Your task to perform on an android device: Go to Google Image 0: 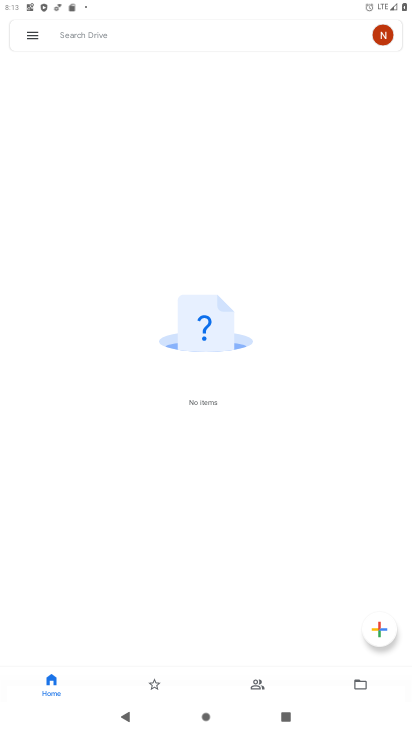
Step 0: press home button
Your task to perform on an android device: Go to Google Image 1: 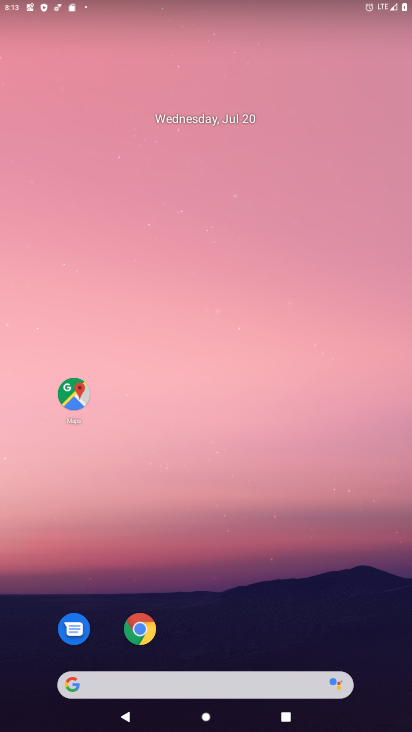
Step 1: drag from (226, 420) to (218, 197)
Your task to perform on an android device: Go to Google Image 2: 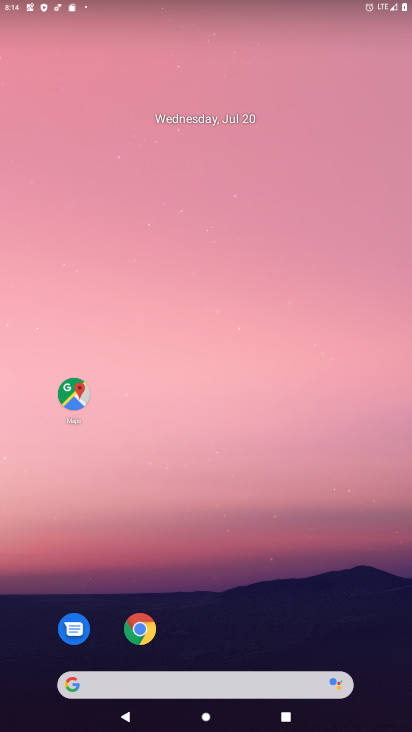
Step 2: drag from (205, 561) to (184, 21)
Your task to perform on an android device: Go to Google Image 3: 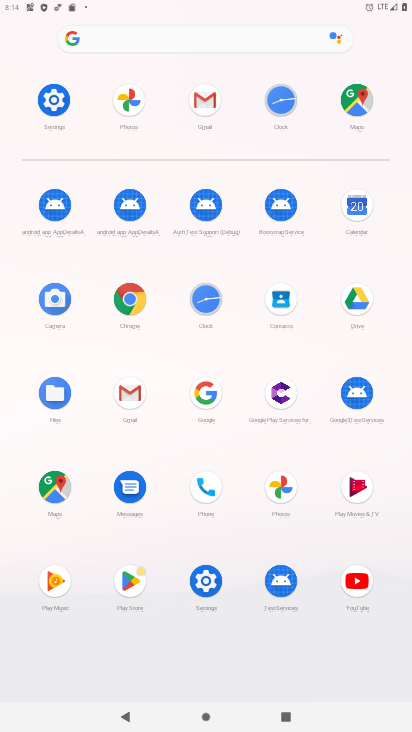
Step 3: click (211, 409)
Your task to perform on an android device: Go to Google Image 4: 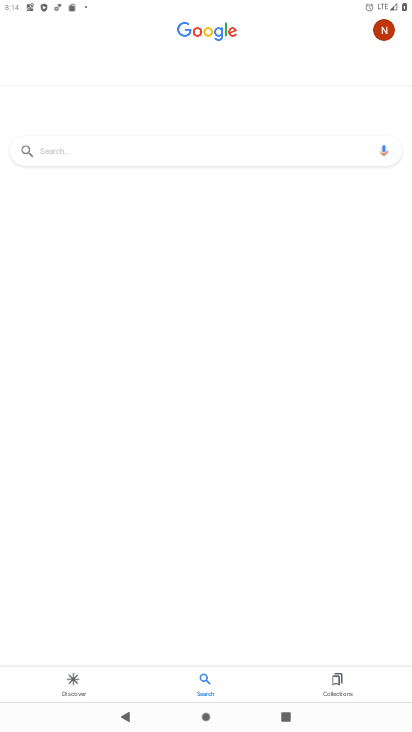
Step 4: task complete